Your task to perform on an android device: open chrome privacy settings Image 0: 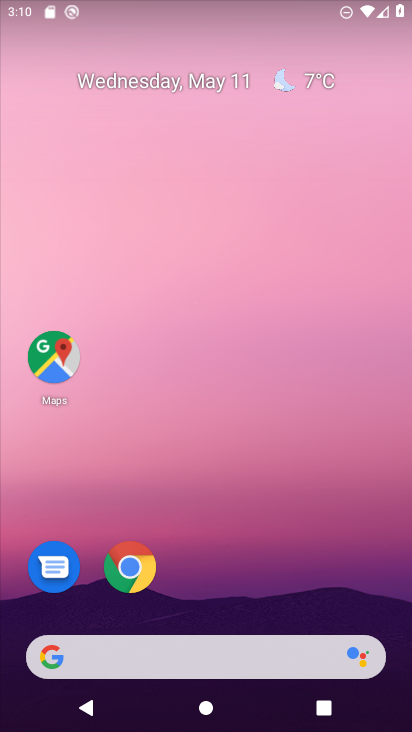
Step 0: click (143, 566)
Your task to perform on an android device: open chrome privacy settings Image 1: 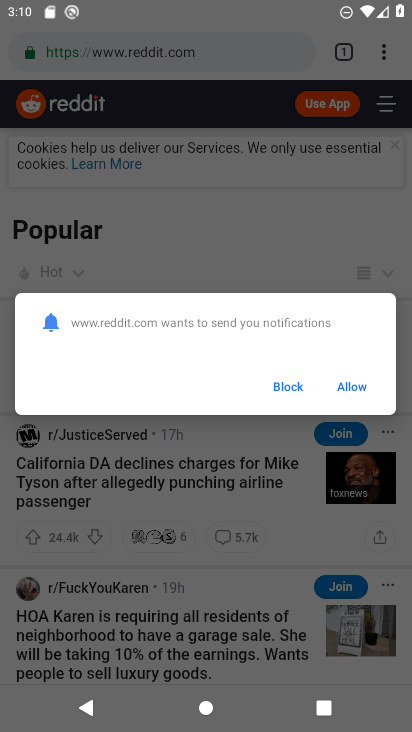
Step 1: click (292, 380)
Your task to perform on an android device: open chrome privacy settings Image 2: 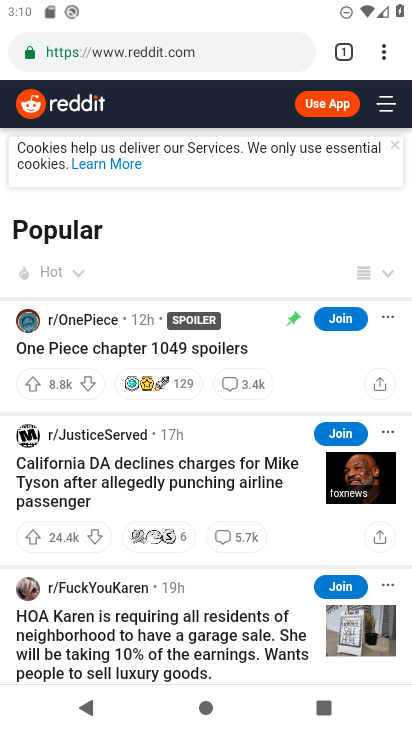
Step 2: click (385, 62)
Your task to perform on an android device: open chrome privacy settings Image 3: 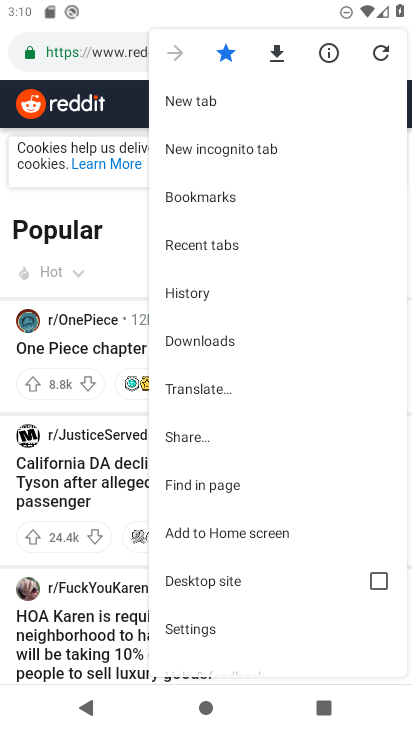
Step 3: click (229, 627)
Your task to perform on an android device: open chrome privacy settings Image 4: 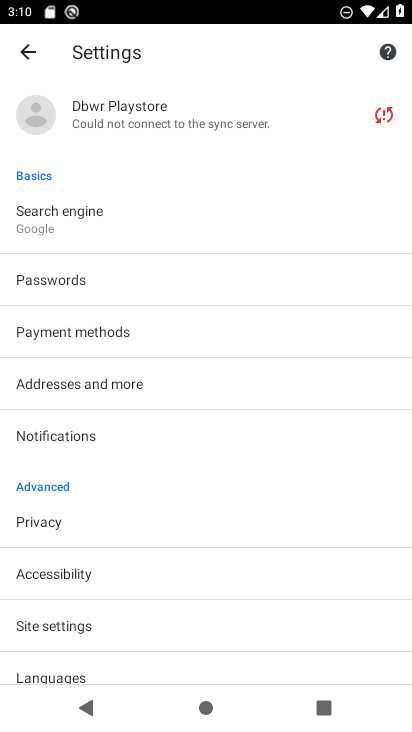
Step 4: click (68, 518)
Your task to perform on an android device: open chrome privacy settings Image 5: 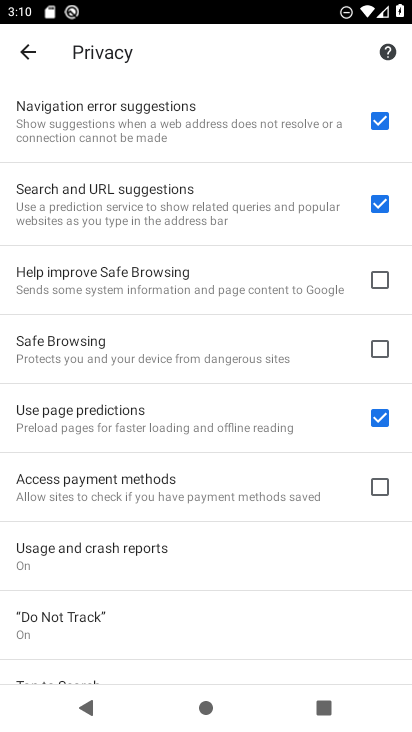
Step 5: task complete